Your task to perform on an android device: Open CNN.com Image 0: 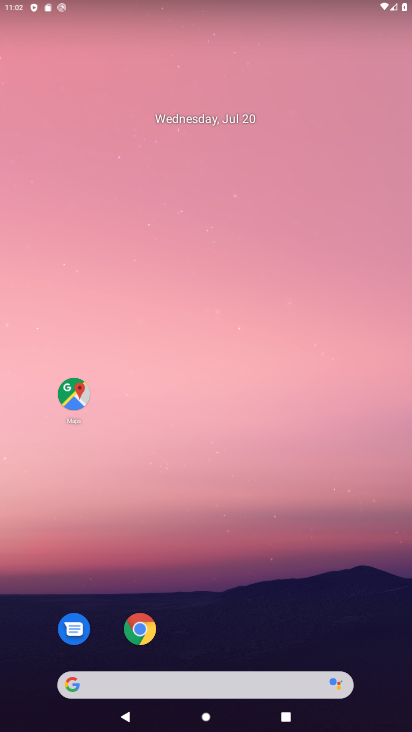
Step 0: drag from (175, 700) to (322, 13)
Your task to perform on an android device: Open CNN.com Image 1: 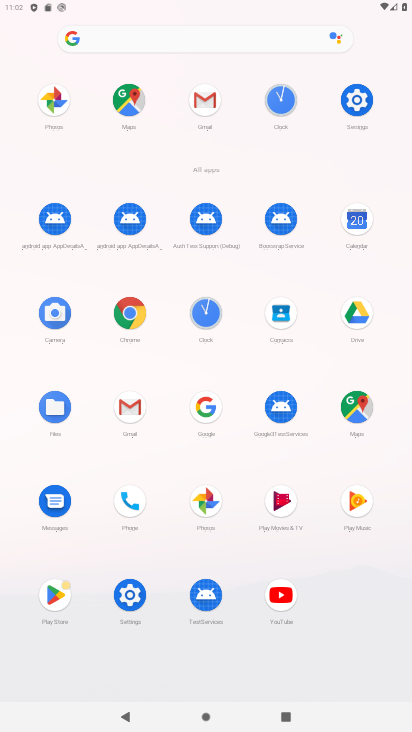
Step 1: click (141, 312)
Your task to perform on an android device: Open CNN.com Image 2: 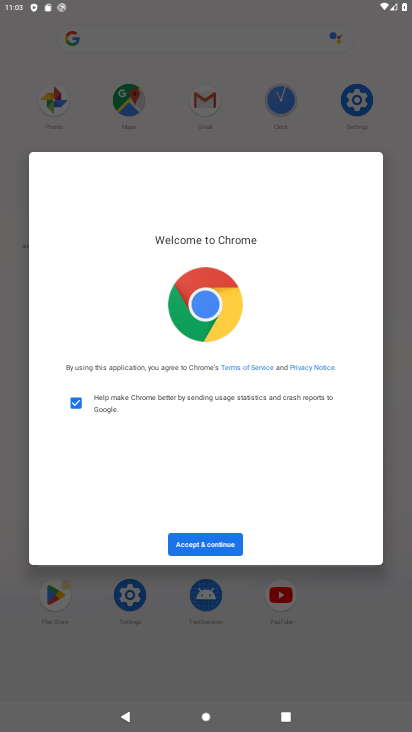
Step 2: click (224, 543)
Your task to perform on an android device: Open CNN.com Image 3: 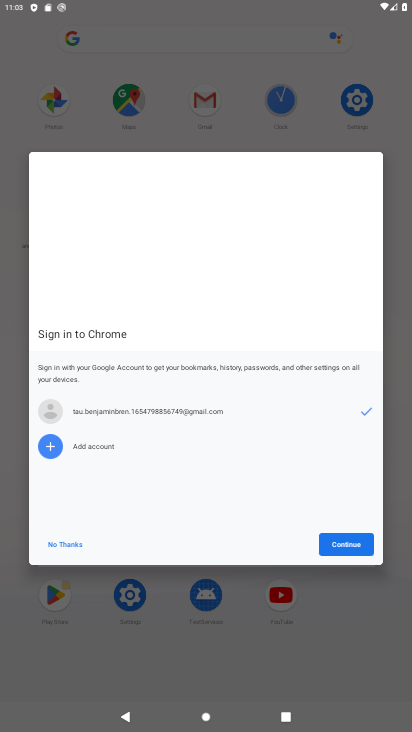
Step 3: click (69, 543)
Your task to perform on an android device: Open CNN.com Image 4: 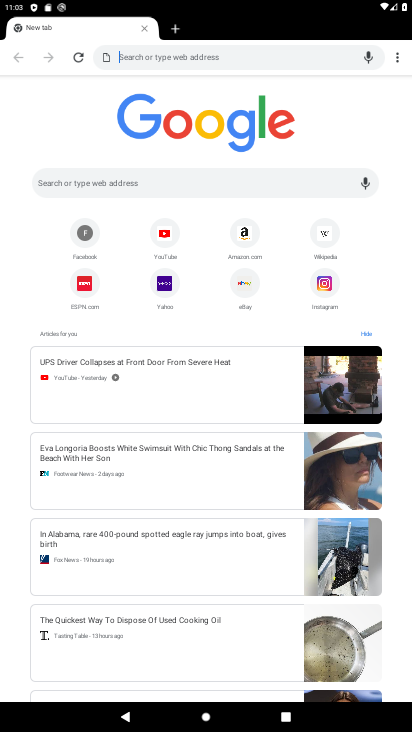
Step 4: click (164, 178)
Your task to perform on an android device: Open CNN.com Image 5: 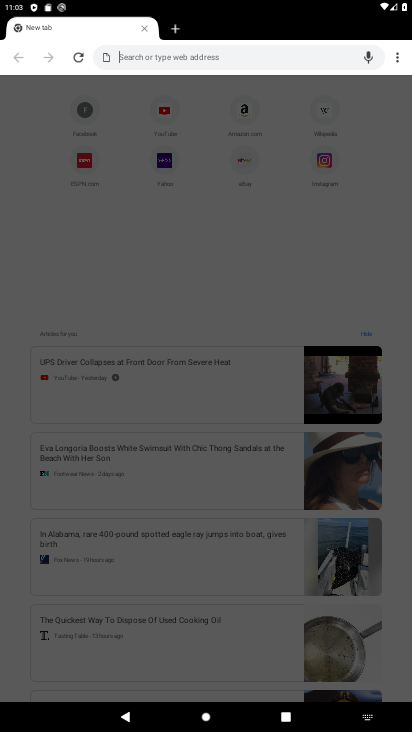
Step 5: type "cnn.com"
Your task to perform on an android device: Open CNN.com Image 6: 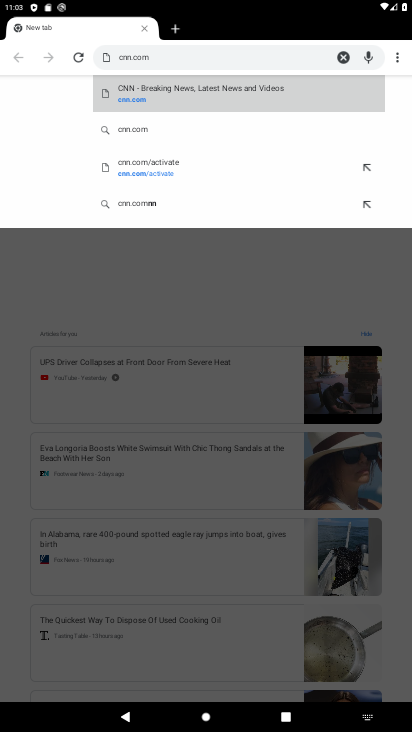
Step 6: click (201, 94)
Your task to perform on an android device: Open CNN.com Image 7: 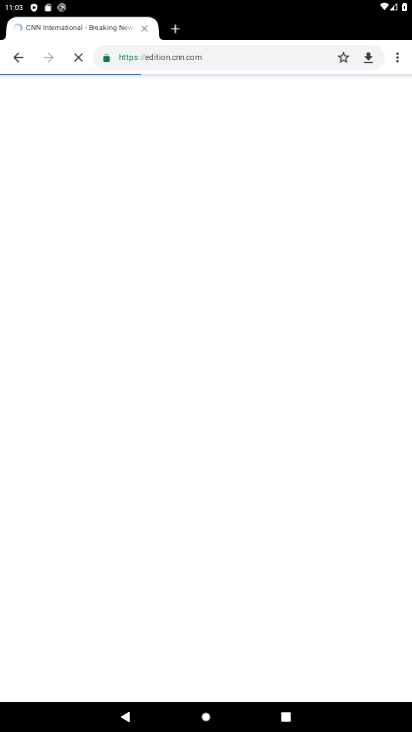
Step 7: task complete